Your task to perform on an android device: When is my next meeting? Image 0: 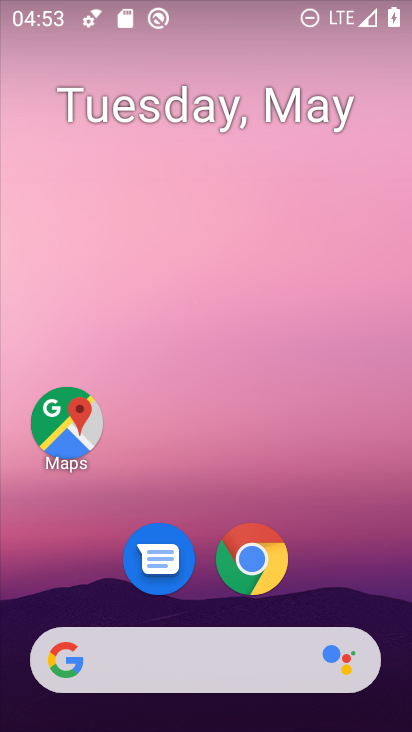
Step 0: drag from (225, 640) to (227, 155)
Your task to perform on an android device: When is my next meeting? Image 1: 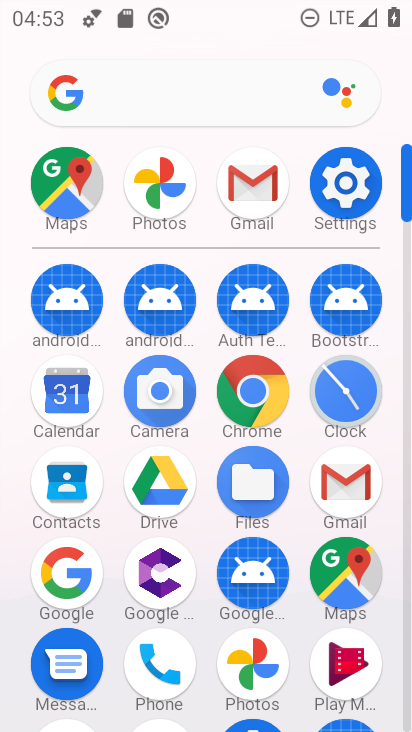
Step 1: click (51, 408)
Your task to perform on an android device: When is my next meeting? Image 2: 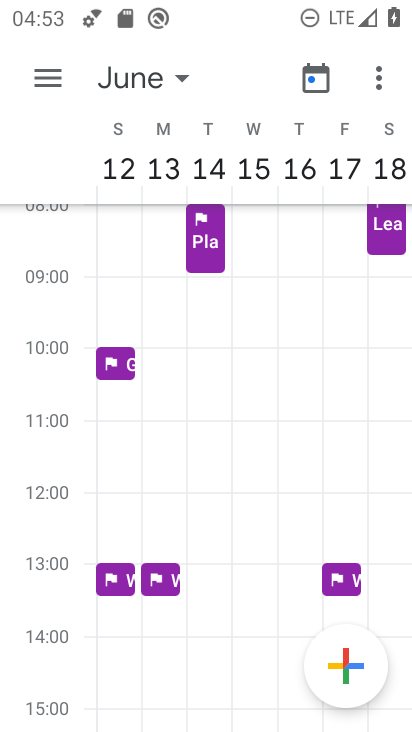
Step 2: click (179, 75)
Your task to perform on an android device: When is my next meeting? Image 3: 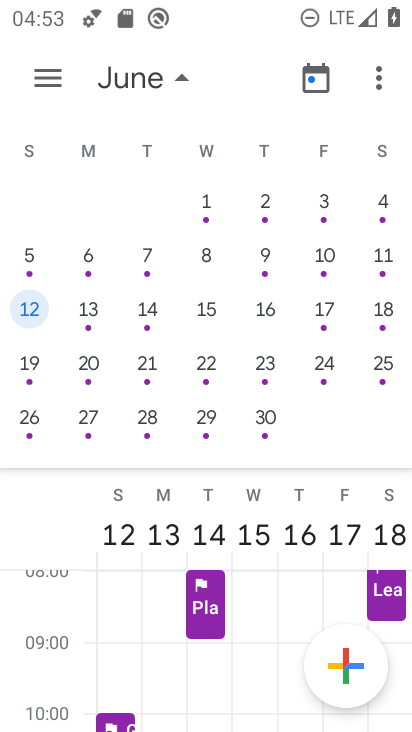
Step 3: click (203, 199)
Your task to perform on an android device: When is my next meeting? Image 4: 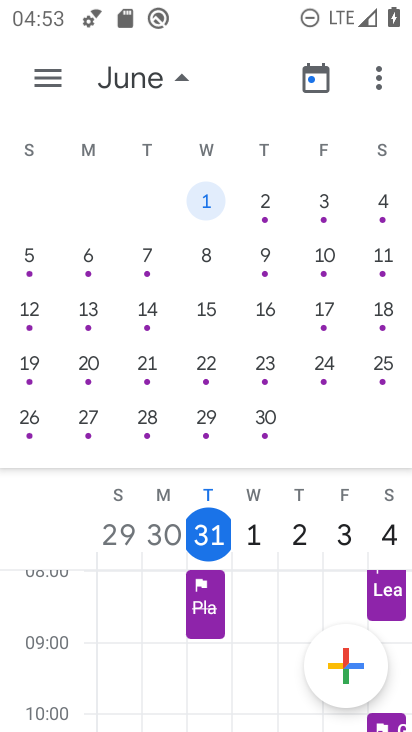
Step 4: click (176, 76)
Your task to perform on an android device: When is my next meeting? Image 5: 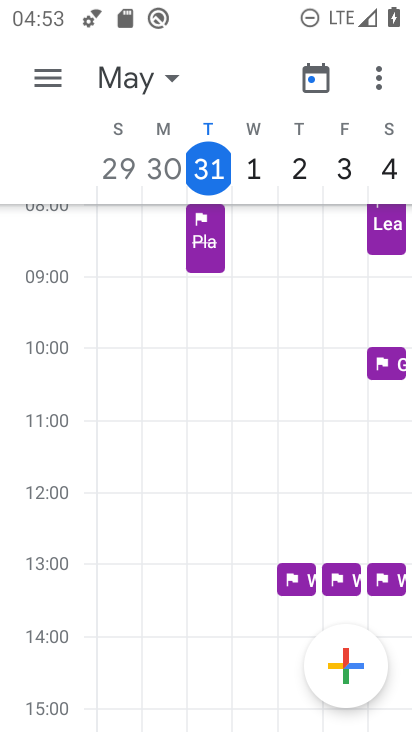
Step 5: task complete